Your task to perform on an android device: View the shopping cart on costco. Add "macbook pro 15 inch" to the cart on costco Image 0: 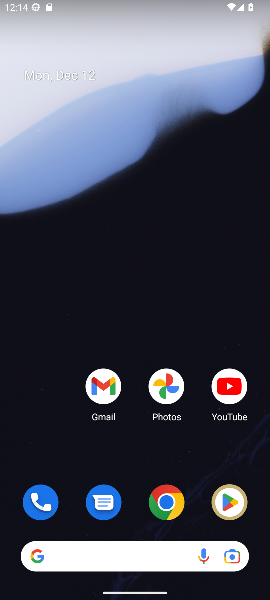
Step 0: click (181, 506)
Your task to perform on an android device: View the shopping cart on costco. Add "macbook pro 15 inch" to the cart on costco Image 1: 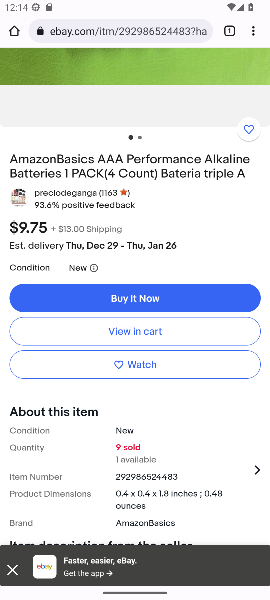
Step 1: click (170, 35)
Your task to perform on an android device: View the shopping cart on costco. Add "macbook pro 15 inch" to the cart on costco Image 2: 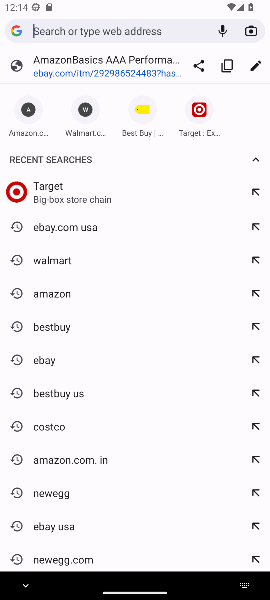
Step 2: type "costco"
Your task to perform on an android device: View the shopping cart on costco. Add "macbook pro 15 inch" to the cart on costco Image 3: 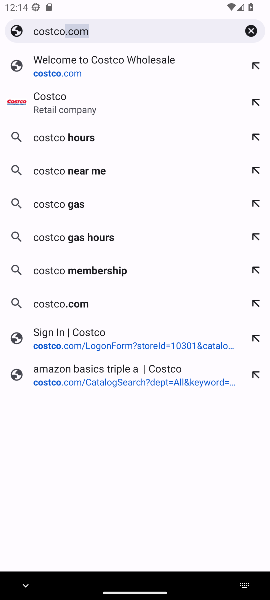
Step 3: click (55, 96)
Your task to perform on an android device: View the shopping cart on costco. Add "macbook pro 15 inch" to the cart on costco Image 4: 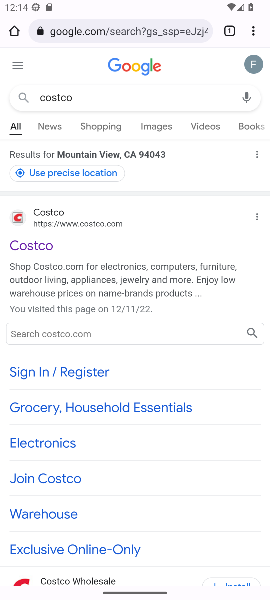
Step 4: click (33, 251)
Your task to perform on an android device: View the shopping cart on costco. Add "macbook pro 15 inch" to the cart on costco Image 5: 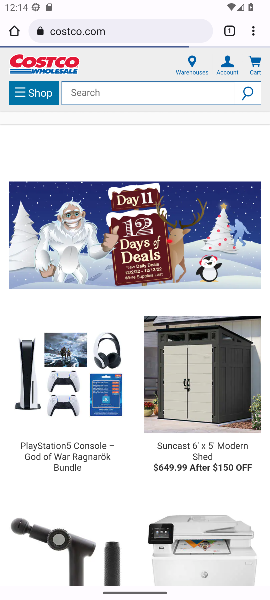
Step 5: click (140, 96)
Your task to perform on an android device: View the shopping cart on costco. Add "macbook pro 15 inch" to the cart on costco Image 6: 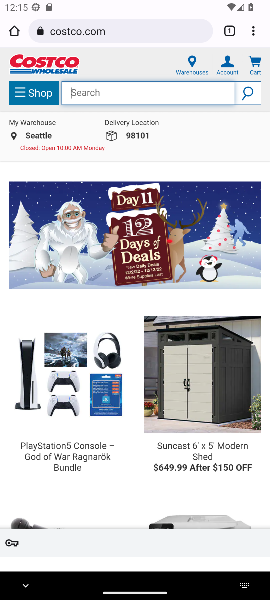
Step 6: type "macbook pro 15 inch"
Your task to perform on an android device: View the shopping cart on costco. Add "macbook pro 15 inch" to the cart on costco Image 7: 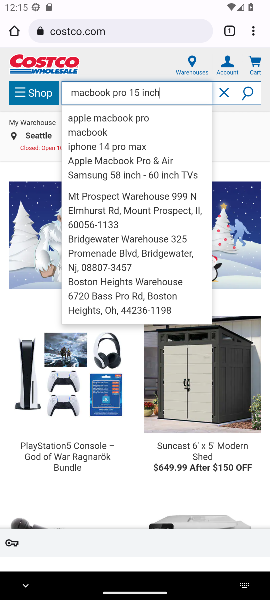
Step 7: click (249, 90)
Your task to perform on an android device: View the shopping cart on costco. Add "macbook pro 15 inch" to the cart on costco Image 8: 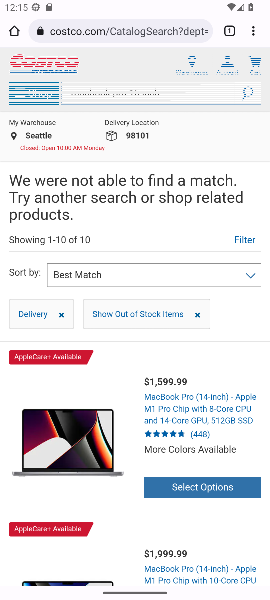
Step 8: click (163, 487)
Your task to perform on an android device: View the shopping cart on costco. Add "macbook pro 15 inch" to the cart on costco Image 9: 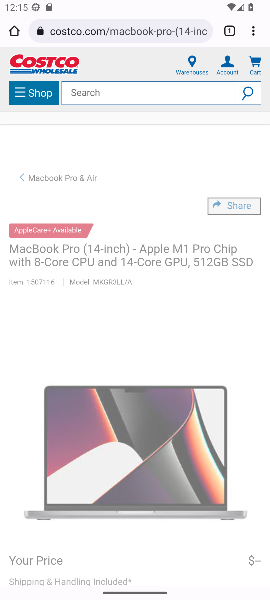
Step 9: drag from (163, 524) to (148, 265)
Your task to perform on an android device: View the shopping cart on costco. Add "macbook pro 15 inch" to the cart on costco Image 10: 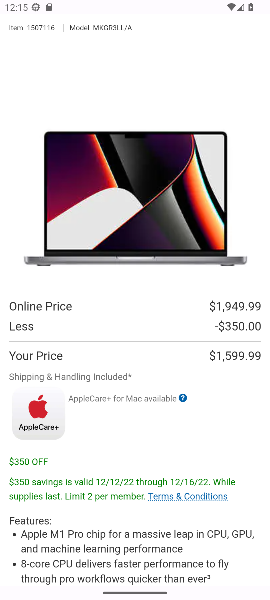
Step 10: drag from (175, 540) to (177, 224)
Your task to perform on an android device: View the shopping cart on costco. Add "macbook pro 15 inch" to the cart on costco Image 11: 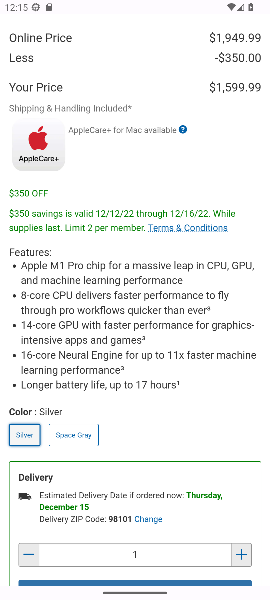
Step 11: drag from (168, 463) to (165, 269)
Your task to perform on an android device: View the shopping cart on costco. Add "macbook pro 15 inch" to the cart on costco Image 12: 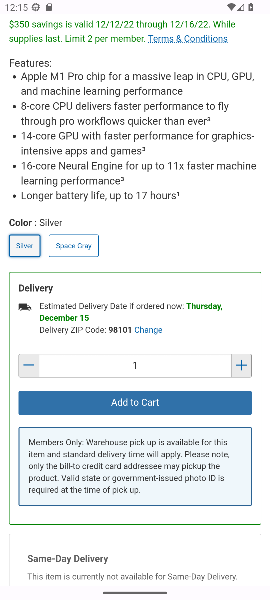
Step 12: click (174, 401)
Your task to perform on an android device: View the shopping cart on costco. Add "macbook pro 15 inch" to the cart on costco Image 13: 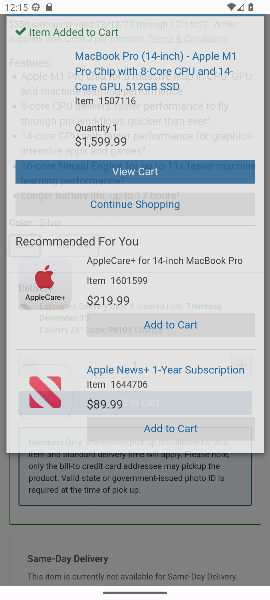
Step 13: press home button
Your task to perform on an android device: View the shopping cart on costco. Add "macbook pro 15 inch" to the cart on costco Image 14: 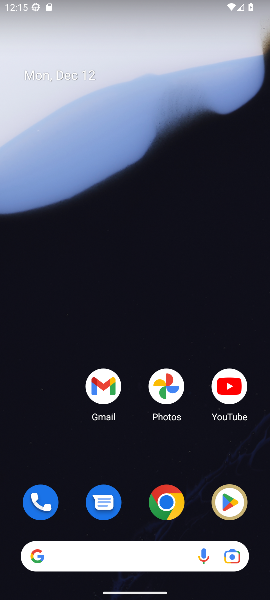
Step 14: click (148, 511)
Your task to perform on an android device: View the shopping cart on costco. Add "macbook pro 15 inch" to the cart on costco Image 15: 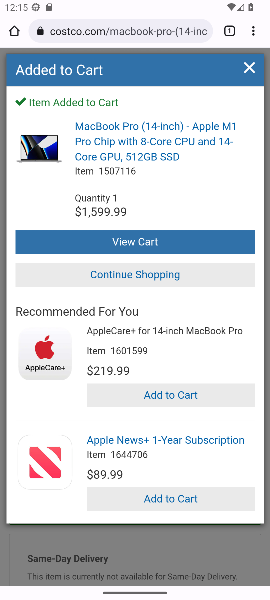
Step 15: click (176, 34)
Your task to perform on an android device: View the shopping cart on costco. Add "macbook pro 15 inch" to the cart on costco Image 16: 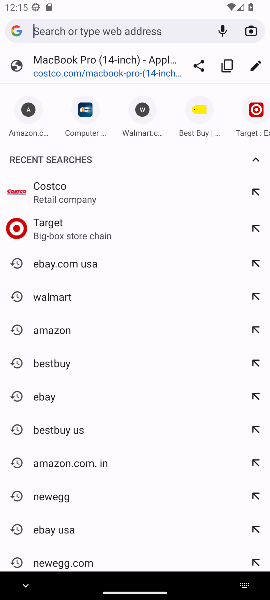
Step 16: type "costco"
Your task to perform on an android device: View the shopping cart on costco. Add "macbook pro 15 inch" to the cart on costco Image 17: 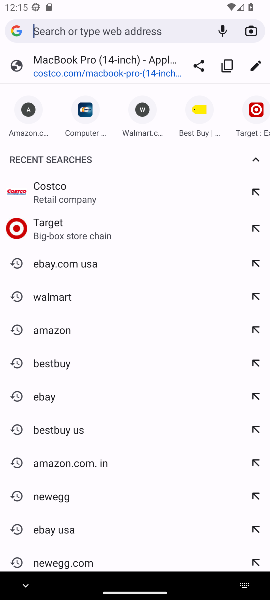
Step 17: click (134, 65)
Your task to perform on an android device: View the shopping cart on costco. Add "macbook pro 15 inch" to the cart on costco Image 18: 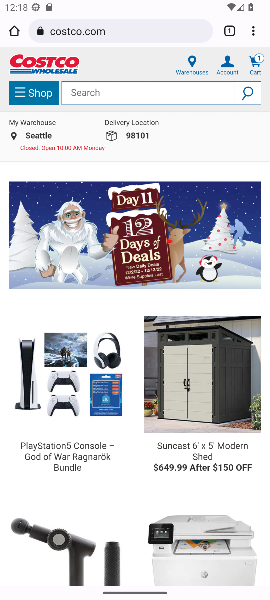
Step 18: task complete